Your task to perform on an android device: Search for the best vacuum on Amazon. Image 0: 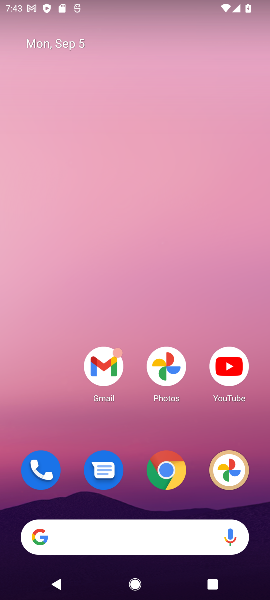
Step 0: click (169, 475)
Your task to perform on an android device: Search for the best vacuum on Amazon. Image 1: 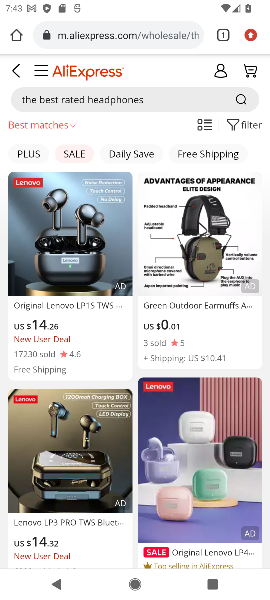
Step 1: click (222, 32)
Your task to perform on an android device: Search for the best vacuum on Amazon. Image 2: 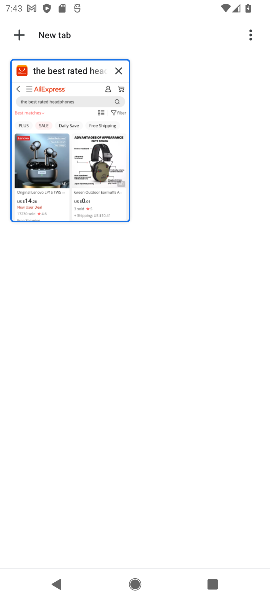
Step 2: click (17, 36)
Your task to perform on an android device: Search for the best vacuum on Amazon. Image 3: 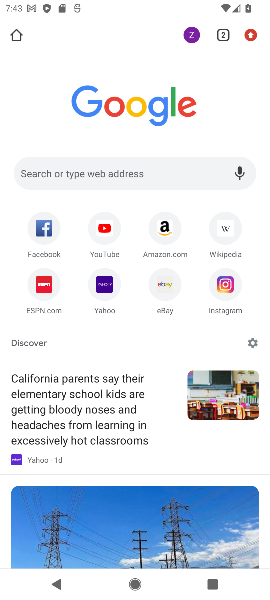
Step 3: click (167, 228)
Your task to perform on an android device: Search for the best vacuum on Amazon. Image 4: 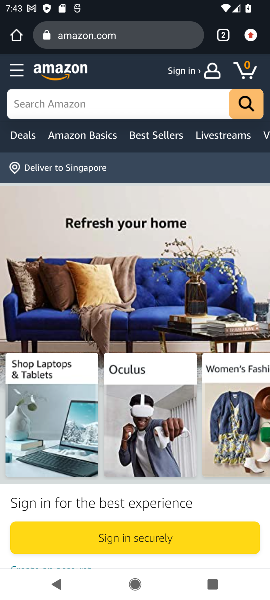
Step 4: click (119, 115)
Your task to perform on an android device: Search for the best vacuum on Amazon. Image 5: 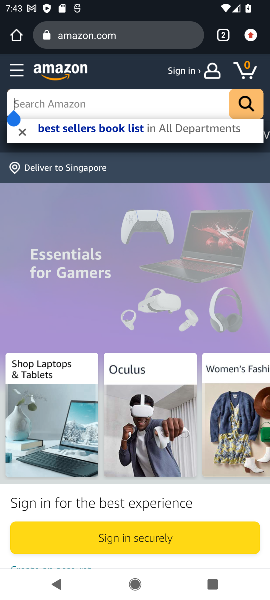
Step 5: type "the best vacuum"
Your task to perform on an android device: Search for the best vacuum on Amazon. Image 6: 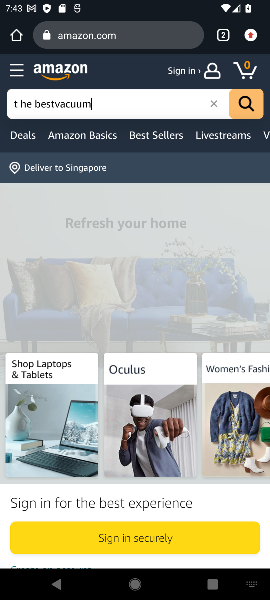
Step 6: click (238, 105)
Your task to perform on an android device: Search for the best vacuum on Amazon. Image 7: 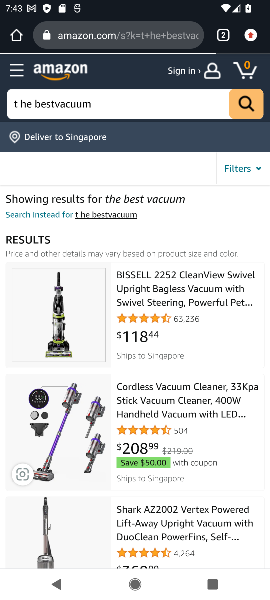
Step 7: task complete